Your task to perform on an android device: Go to notification settings Image 0: 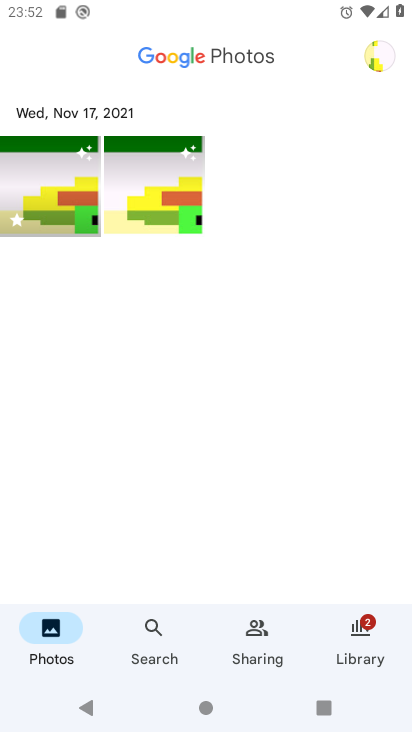
Step 0: press home button
Your task to perform on an android device: Go to notification settings Image 1: 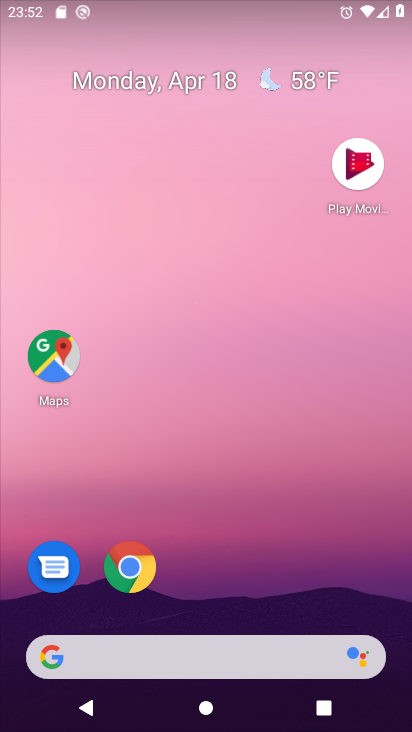
Step 1: drag from (218, 513) to (288, 3)
Your task to perform on an android device: Go to notification settings Image 2: 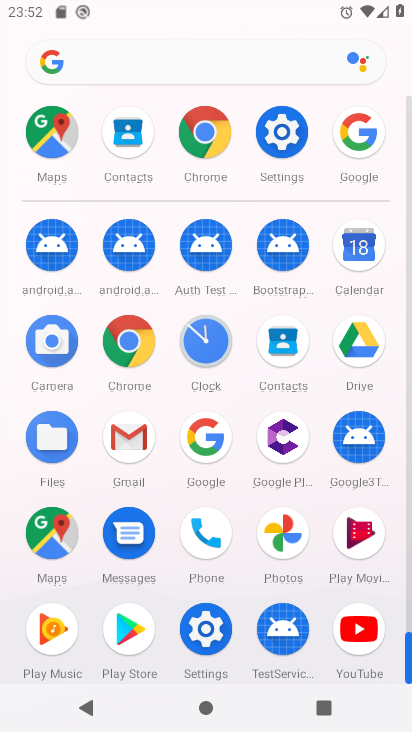
Step 2: click (278, 136)
Your task to perform on an android device: Go to notification settings Image 3: 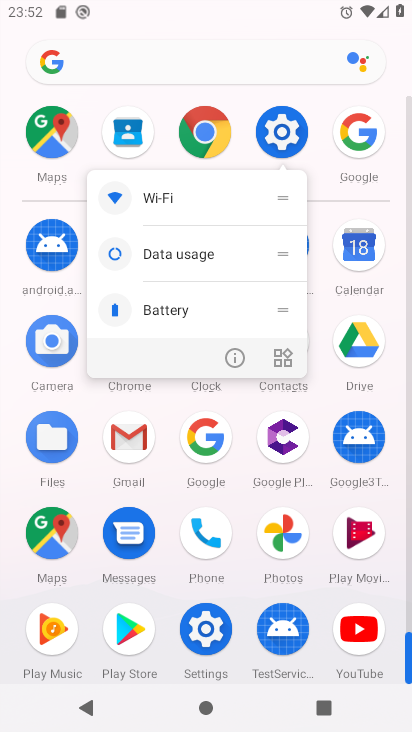
Step 3: click (234, 357)
Your task to perform on an android device: Go to notification settings Image 4: 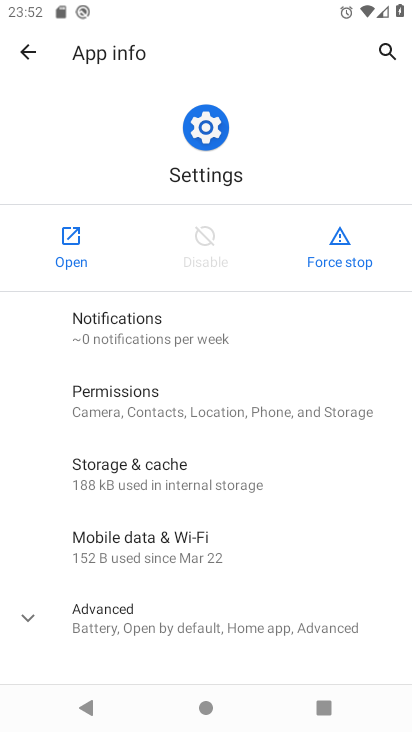
Step 4: click (57, 250)
Your task to perform on an android device: Go to notification settings Image 5: 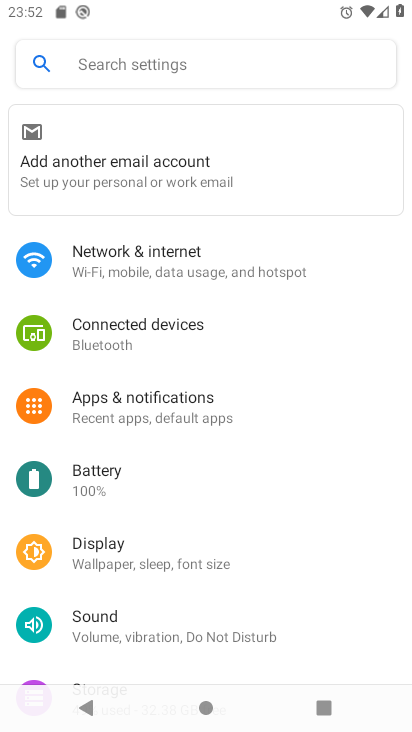
Step 5: drag from (265, 542) to (254, 176)
Your task to perform on an android device: Go to notification settings Image 6: 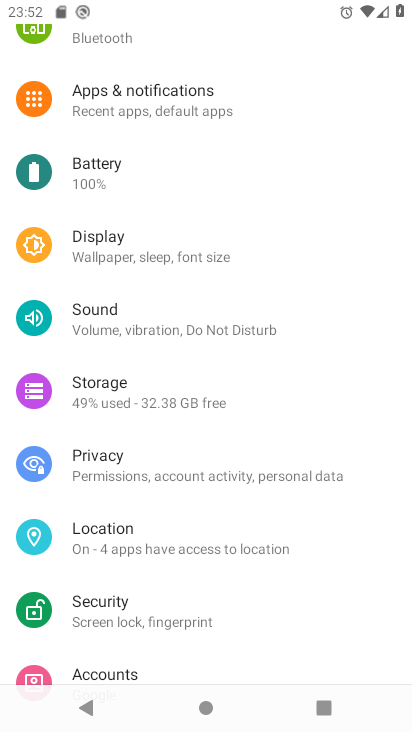
Step 6: drag from (188, 98) to (228, 437)
Your task to perform on an android device: Go to notification settings Image 7: 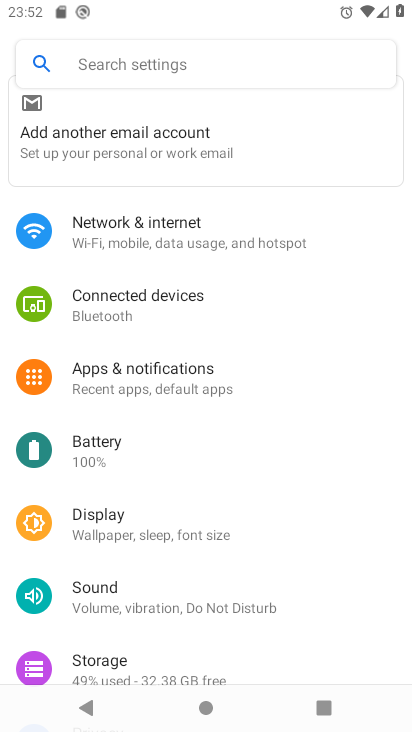
Step 7: click (182, 380)
Your task to perform on an android device: Go to notification settings Image 8: 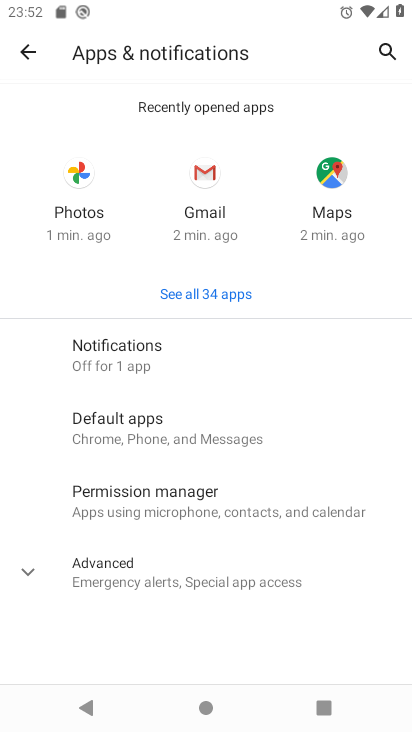
Step 8: click (179, 358)
Your task to perform on an android device: Go to notification settings Image 9: 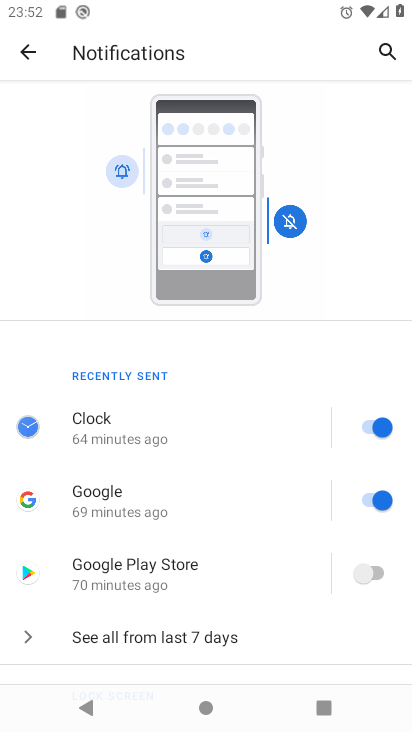
Step 9: click (375, 421)
Your task to perform on an android device: Go to notification settings Image 10: 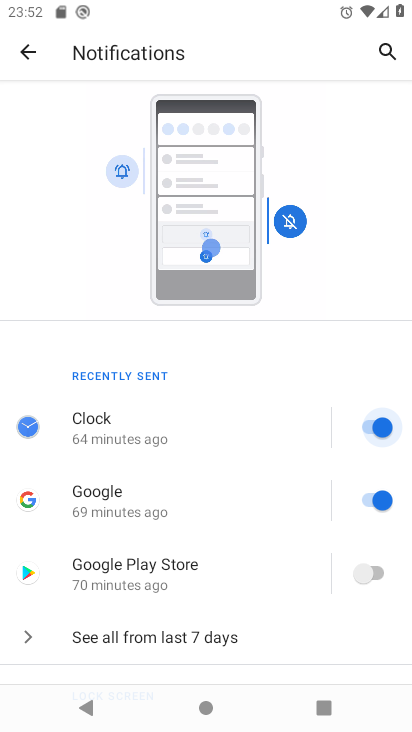
Step 10: task complete